Your task to perform on an android device: turn pop-ups off in chrome Image 0: 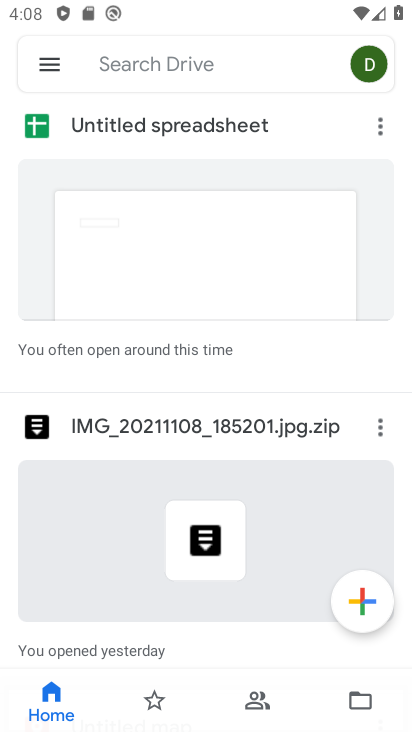
Step 0: press home button
Your task to perform on an android device: turn pop-ups off in chrome Image 1: 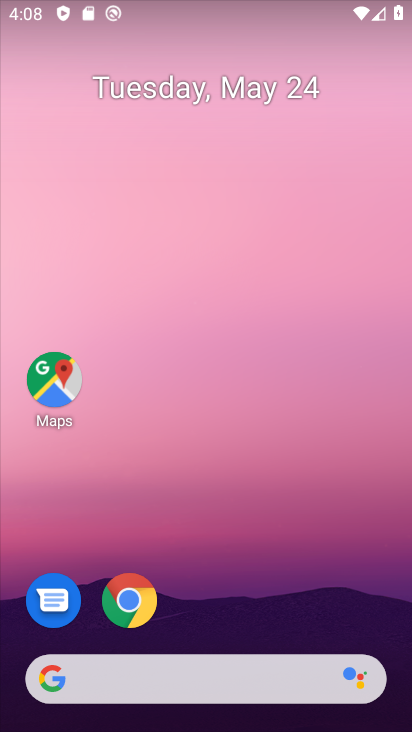
Step 1: click (136, 593)
Your task to perform on an android device: turn pop-ups off in chrome Image 2: 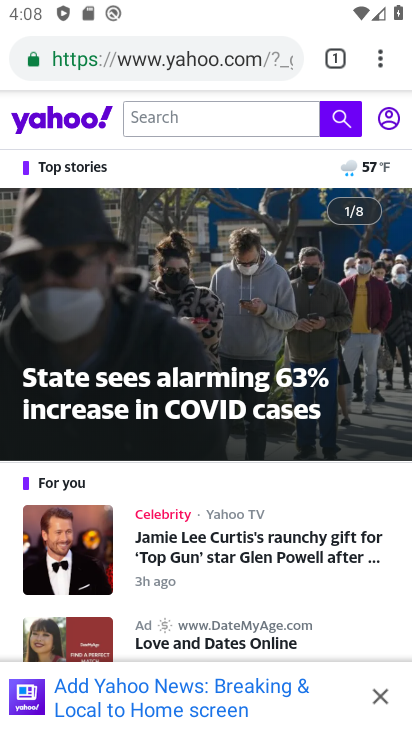
Step 2: click (383, 58)
Your task to perform on an android device: turn pop-ups off in chrome Image 3: 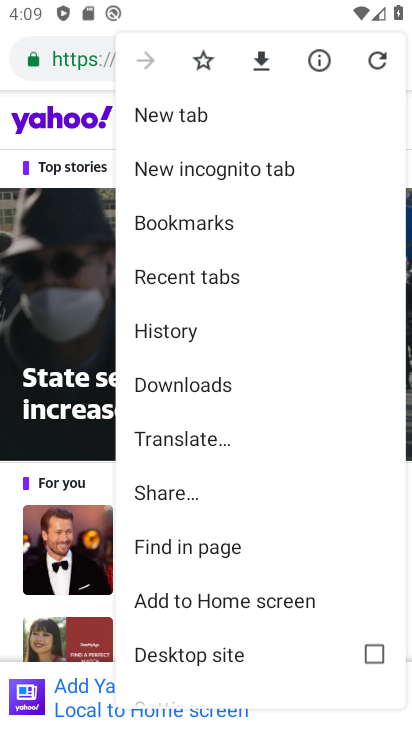
Step 3: drag from (275, 524) to (239, 171)
Your task to perform on an android device: turn pop-ups off in chrome Image 4: 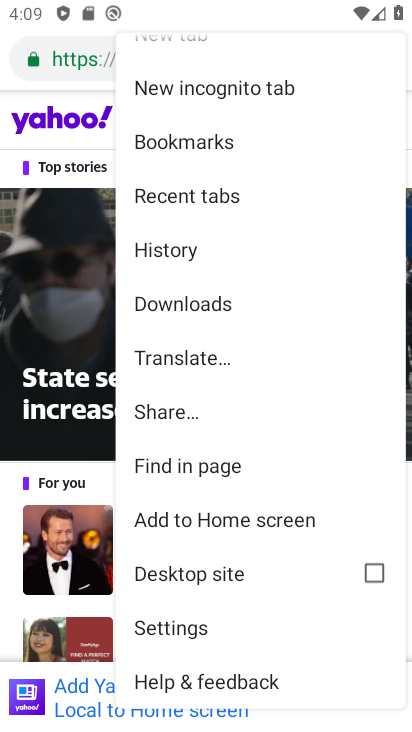
Step 4: click (178, 629)
Your task to perform on an android device: turn pop-ups off in chrome Image 5: 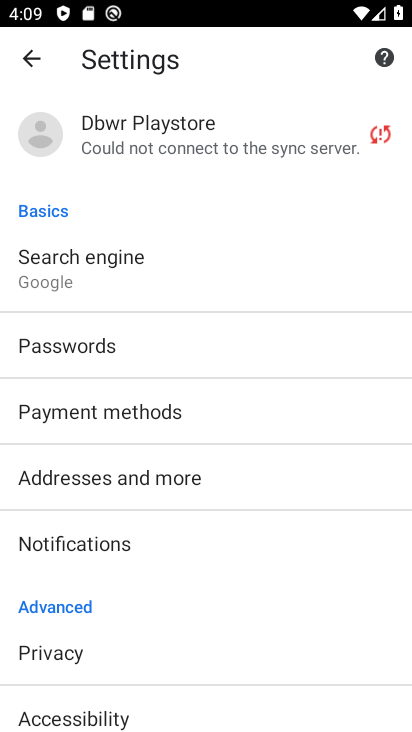
Step 5: drag from (172, 568) to (192, 140)
Your task to perform on an android device: turn pop-ups off in chrome Image 6: 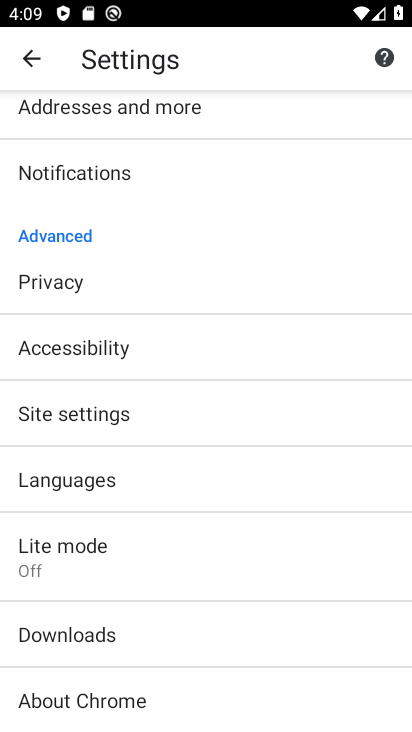
Step 6: click (77, 417)
Your task to perform on an android device: turn pop-ups off in chrome Image 7: 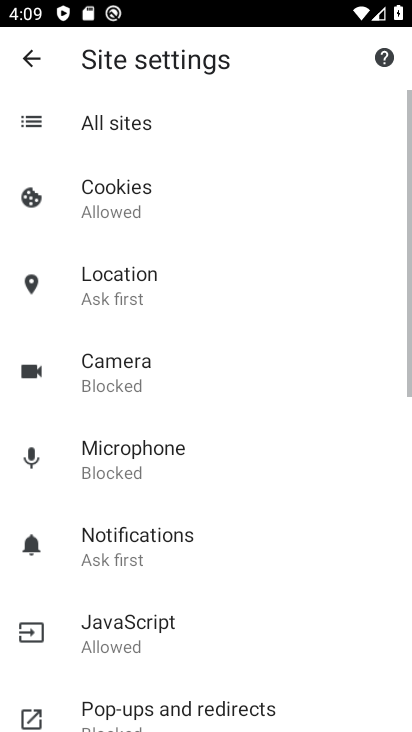
Step 7: drag from (241, 585) to (236, 346)
Your task to perform on an android device: turn pop-ups off in chrome Image 8: 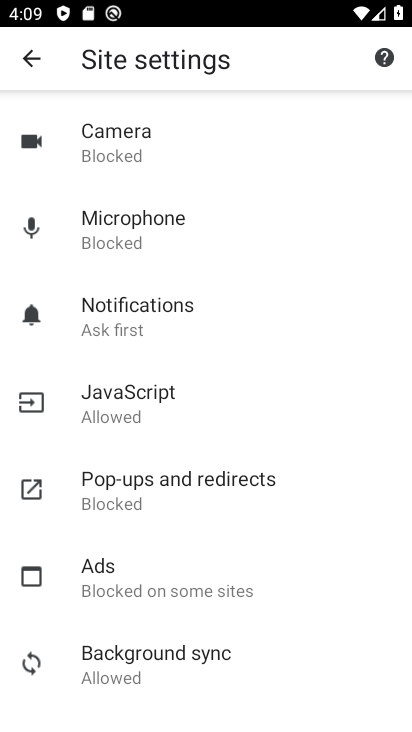
Step 8: click (112, 483)
Your task to perform on an android device: turn pop-ups off in chrome Image 9: 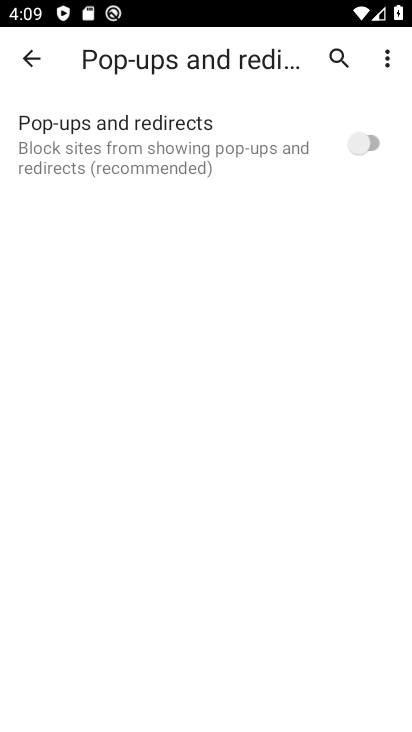
Step 9: task complete